Your task to perform on an android device: Add usb-c to usb-b to the cart on costco, then select checkout. Image 0: 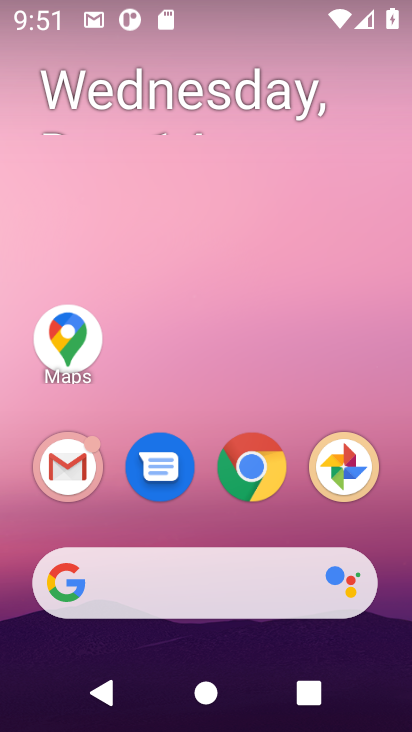
Step 0: click (231, 474)
Your task to perform on an android device: Add usb-c to usb-b to the cart on costco, then select checkout. Image 1: 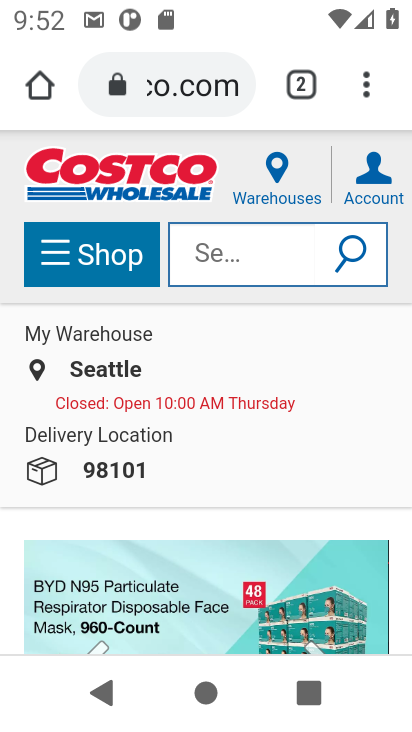
Step 1: click (250, 267)
Your task to perform on an android device: Add usb-c to usb-b to the cart on costco, then select checkout. Image 2: 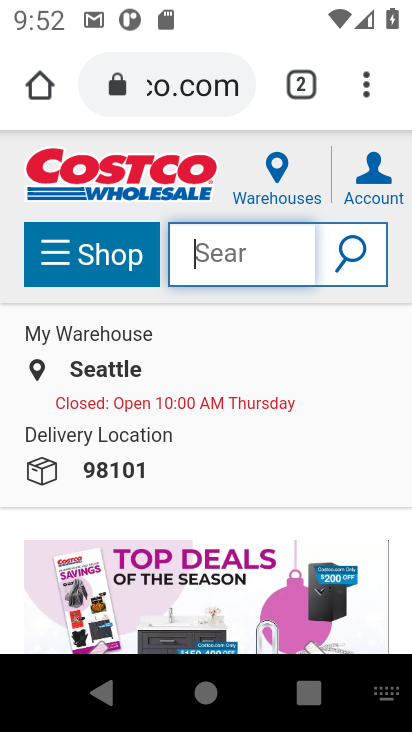
Step 2: type "usb-c to usb-b"
Your task to perform on an android device: Add usb-c to usb-b to the cart on costco, then select checkout. Image 3: 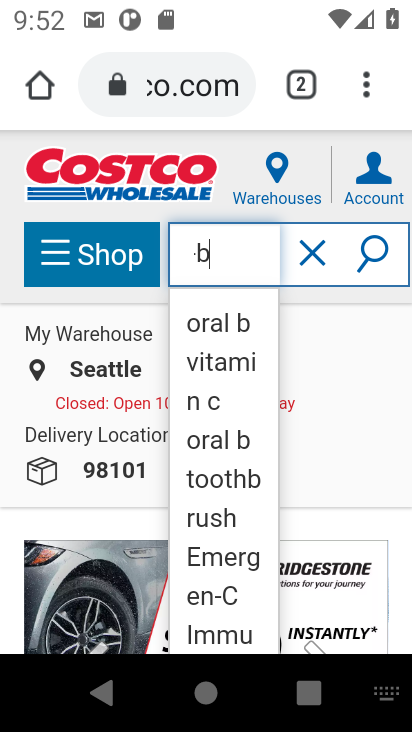
Step 3: click (384, 270)
Your task to perform on an android device: Add usb-c to usb-b to the cart on costco, then select checkout. Image 4: 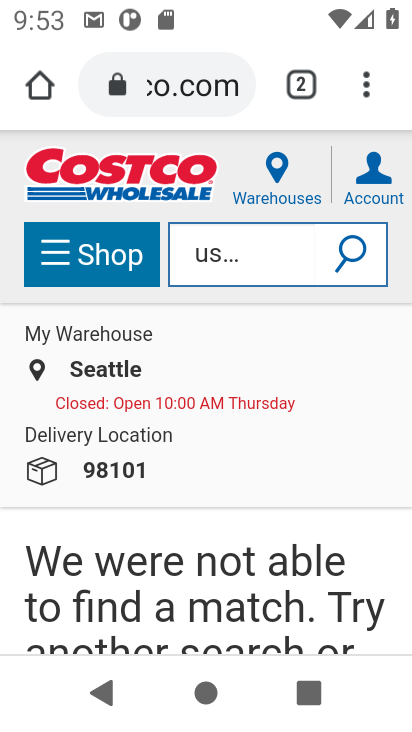
Step 4: task complete